Your task to perform on an android device: empty trash in google photos Image 0: 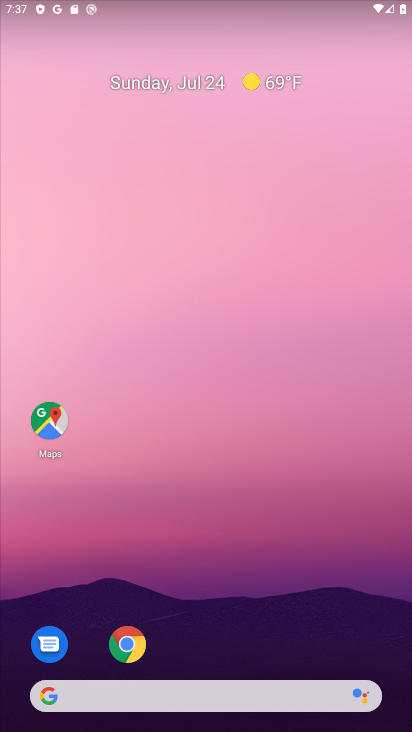
Step 0: drag from (156, 642) to (167, 139)
Your task to perform on an android device: empty trash in google photos Image 1: 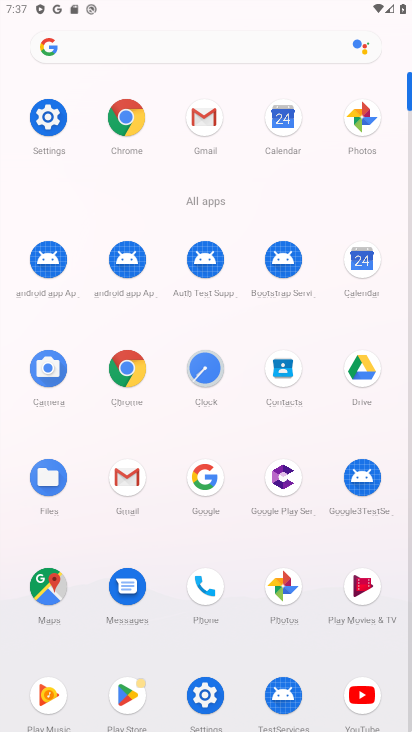
Step 1: click (284, 582)
Your task to perform on an android device: empty trash in google photos Image 2: 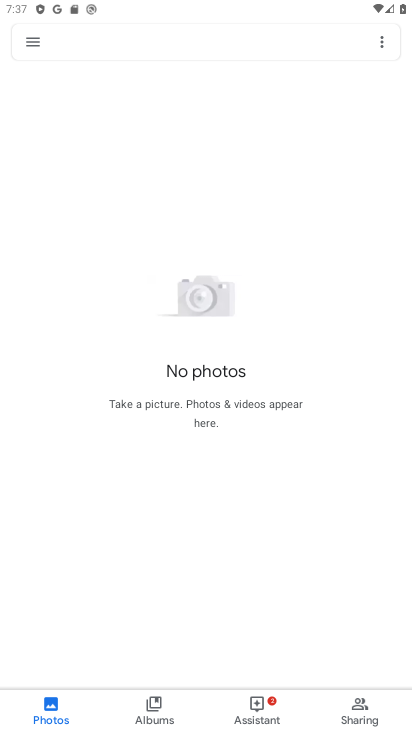
Step 2: click (32, 38)
Your task to perform on an android device: empty trash in google photos Image 3: 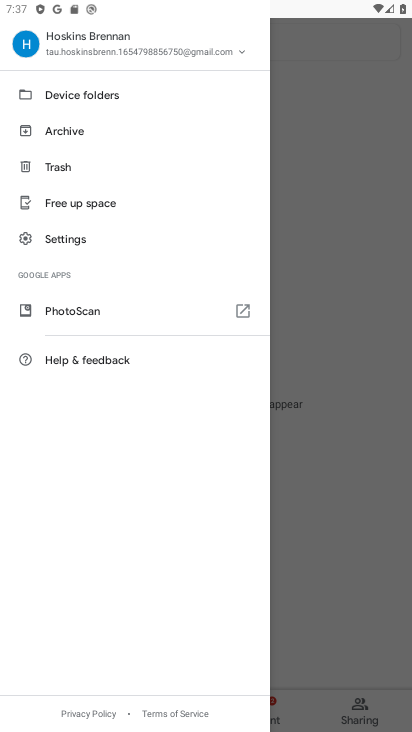
Step 3: click (58, 155)
Your task to perform on an android device: empty trash in google photos Image 4: 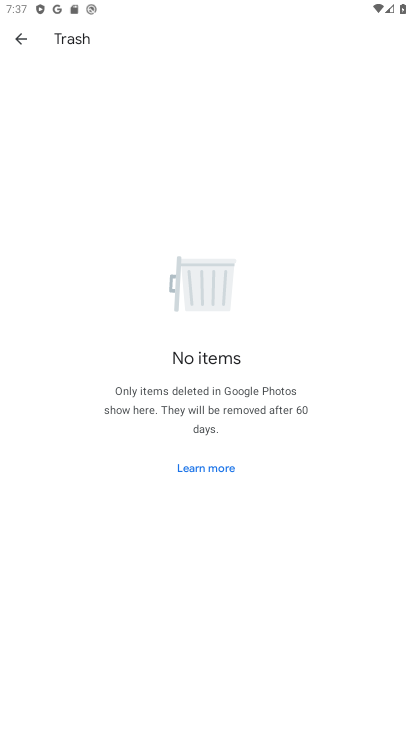
Step 4: task complete